Your task to perform on an android device: Install the ESPN app Image 0: 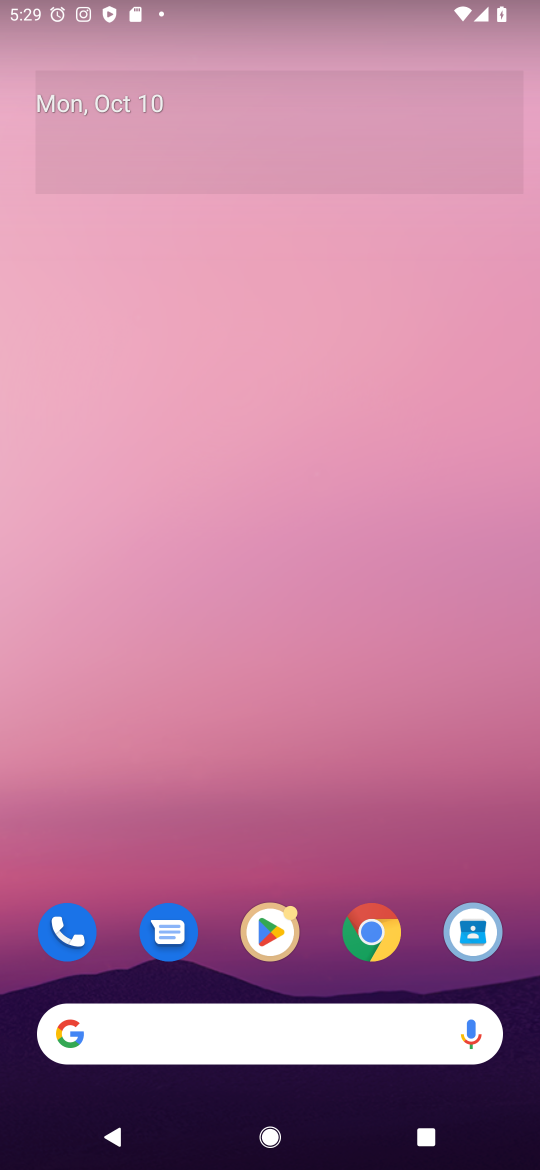
Step 0: press home button
Your task to perform on an android device: Install the ESPN app Image 1: 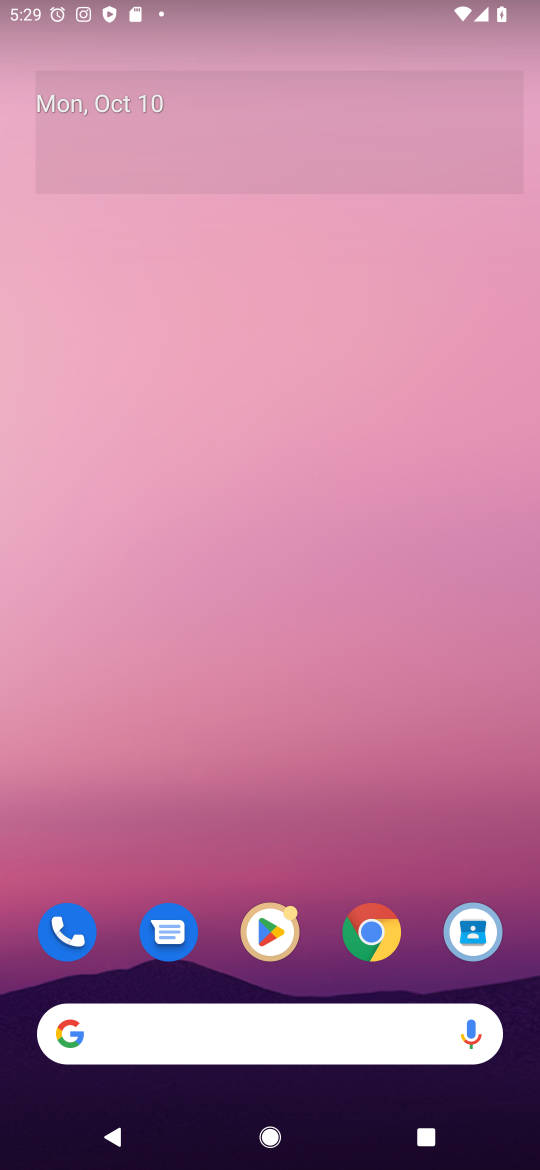
Step 1: drag from (477, 797) to (453, 94)
Your task to perform on an android device: Install the ESPN app Image 2: 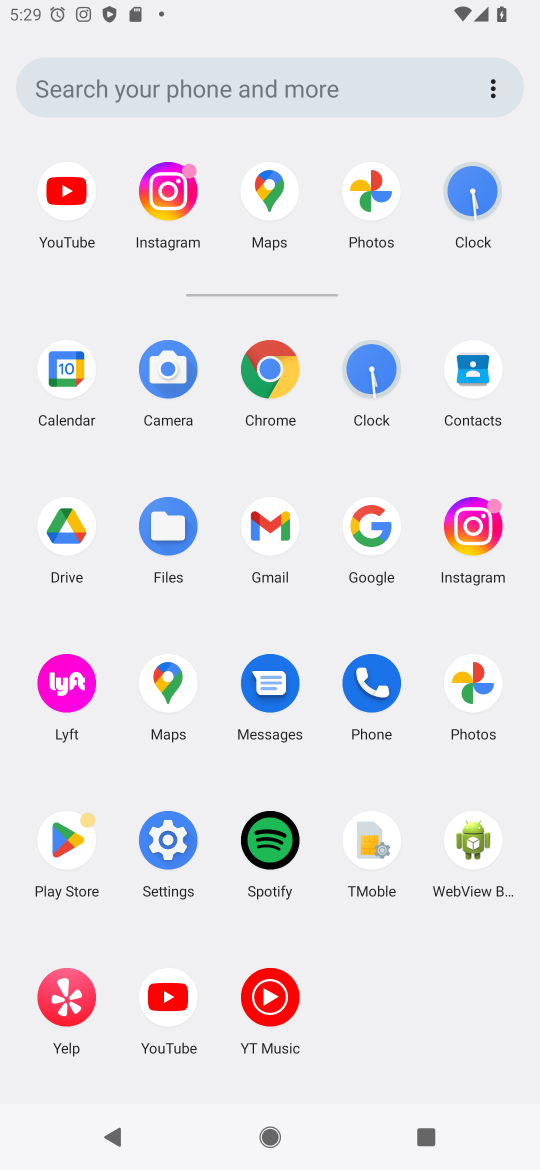
Step 2: click (72, 836)
Your task to perform on an android device: Install the ESPN app Image 3: 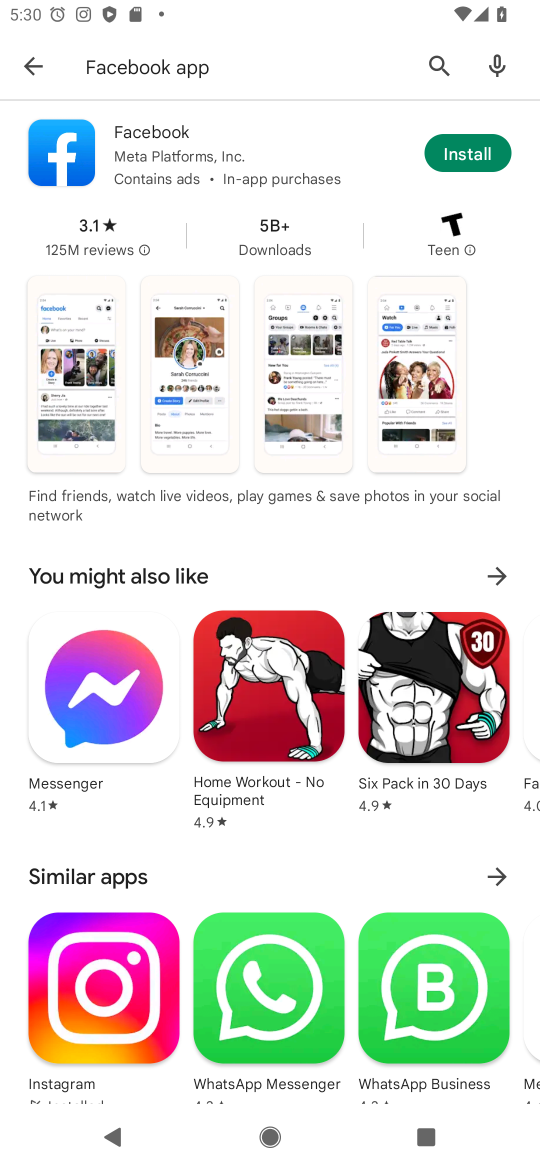
Step 3: press back button
Your task to perform on an android device: Install the ESPN app Image 4: 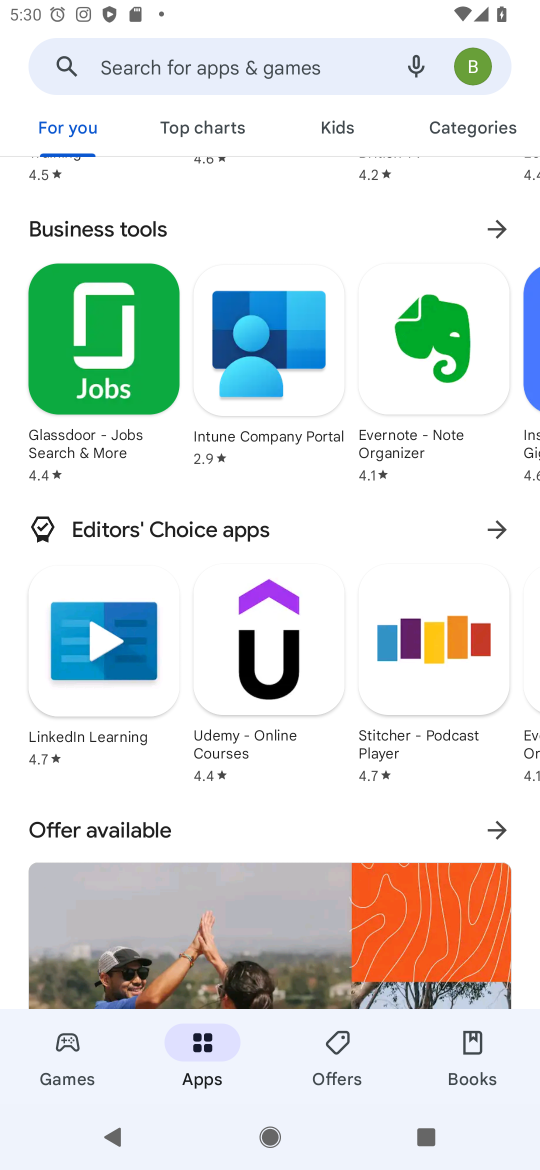
Step 4: click (279, 62)
Your task to perform on an android device: Install the ESPN app Image 5: 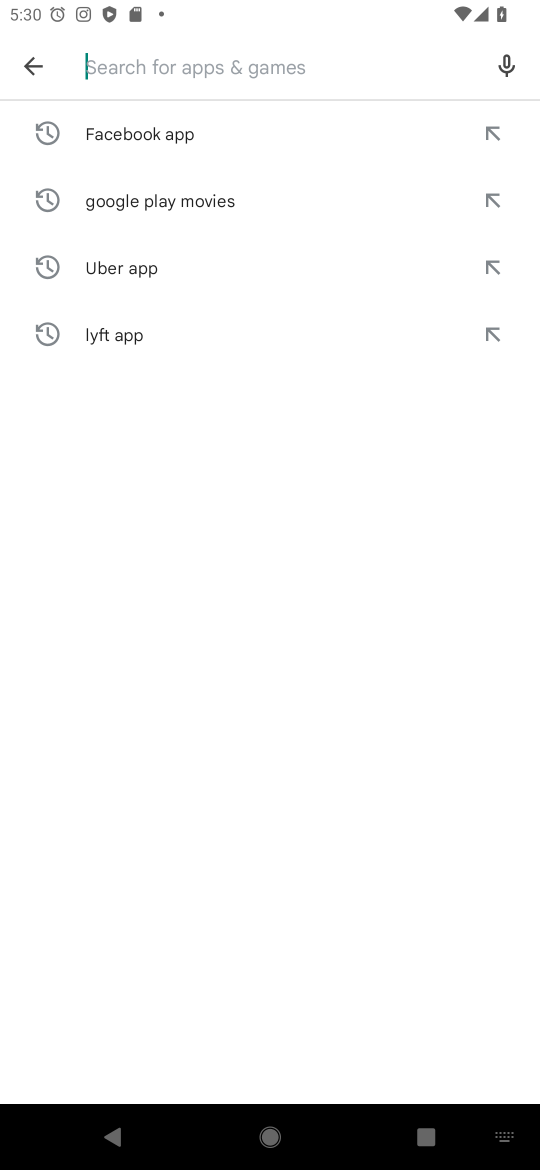
Step 5: press enter
Your task to perform on an android device: Install the ESPN app Image 6: 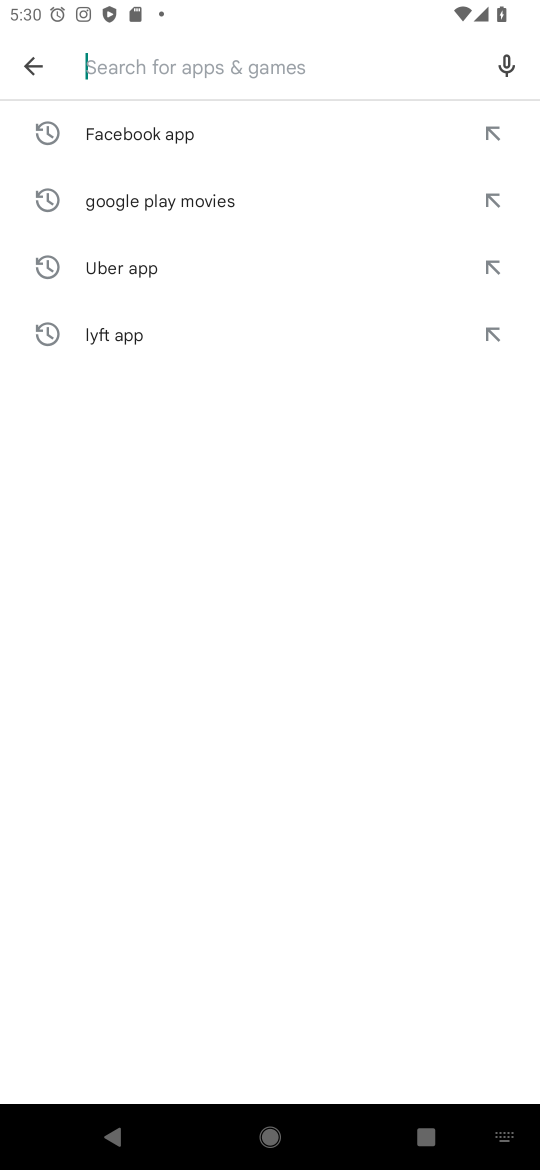
Step 6: type "espn app"
Your task to perform on an android device: Install the ESPN app Image 7: 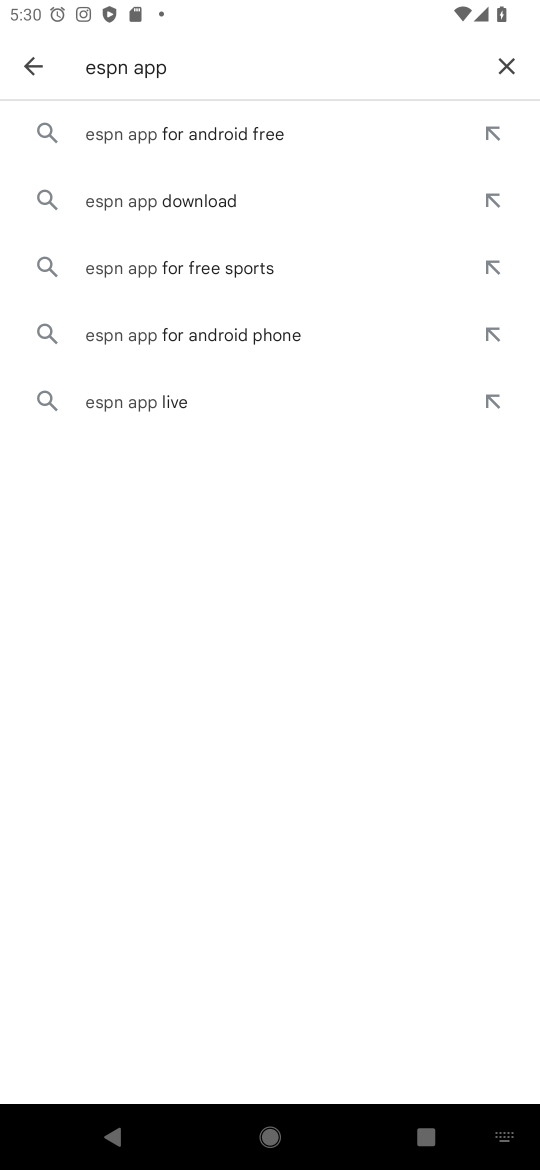
Step 7: press enter
Your task to perform on an android device: Install the ESPN app Image 8: 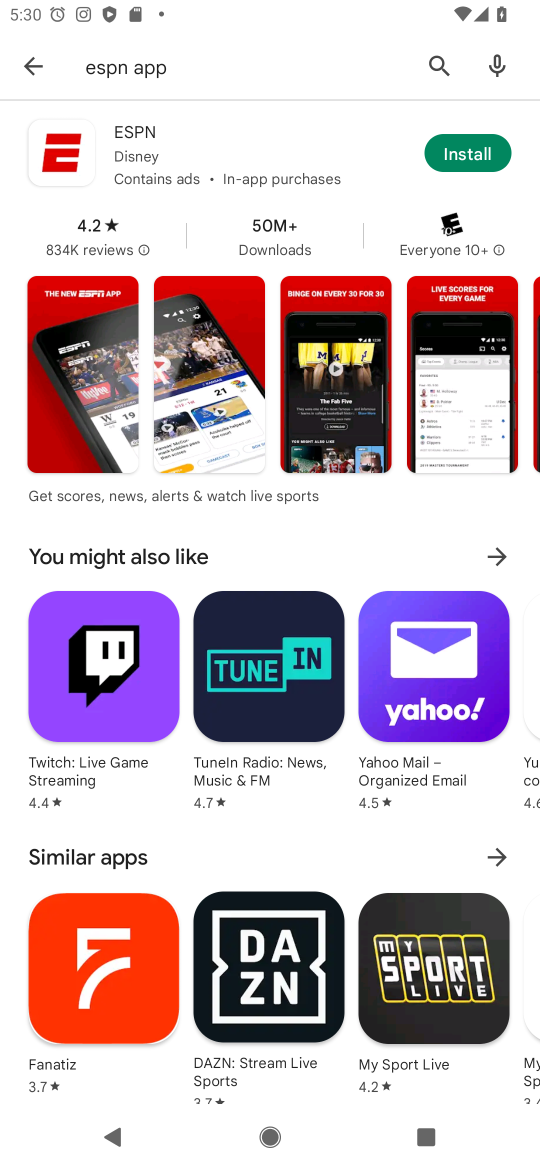
Step 8: click (468, 153)
Your task to perform on an android device: Install the ESPN app Image 9: 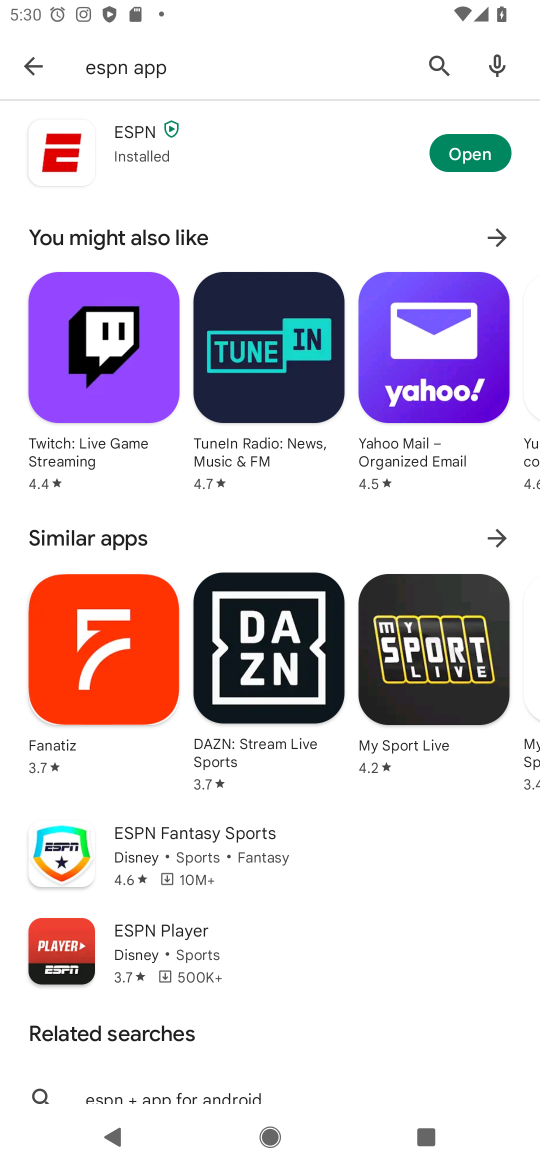
Step 9: task complete